Your task to perform on an android device: Open the calendar app, open the side menu, and click the "Day" option Image 0: 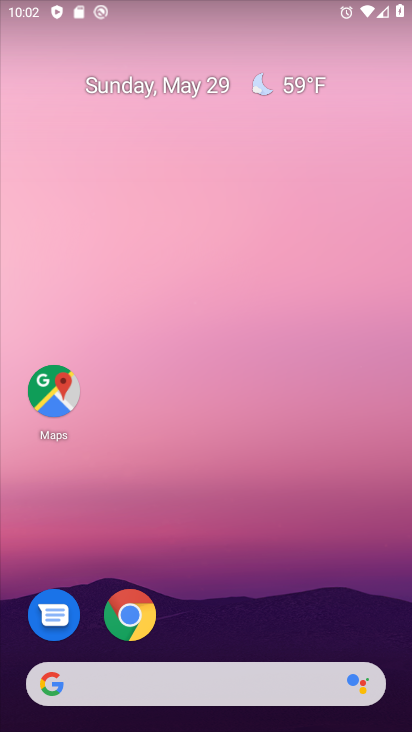
Step 0: drag from (252, 549) to (240, 5)
Your task to perform on an android device: Open the calendar app, open the side menu, and click the "Day" option Image 1: 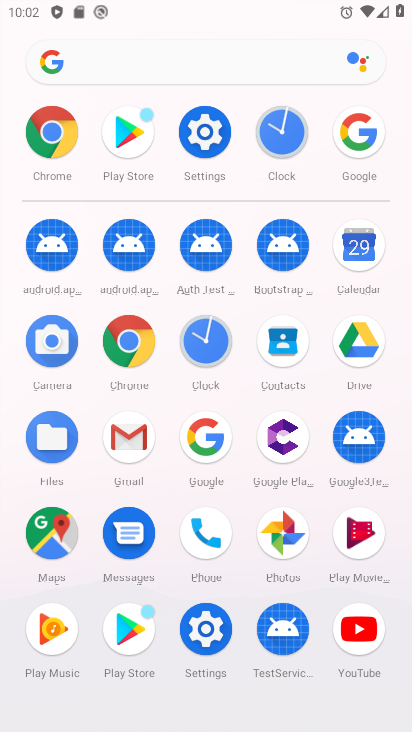
Step 1: click (357, 258)
Your task to perform on an android device: Open the calendar app, open the side menu, and click the "Day" option Image 2: 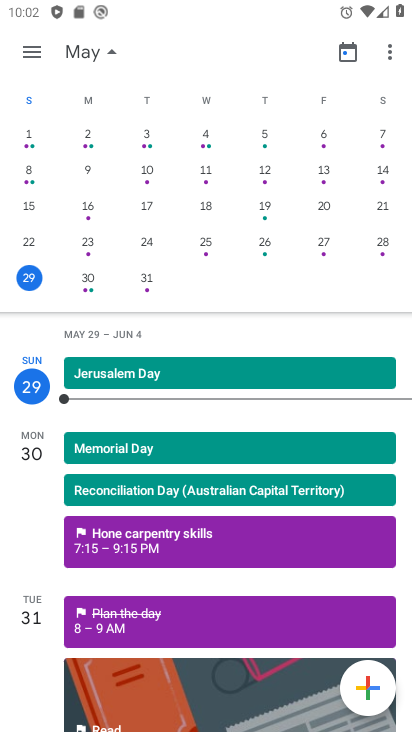
Step 2: click (28, 44)
Your task to perform on an android device: Open the calendar app, open the side menu, and click the "Day" option Image 3: 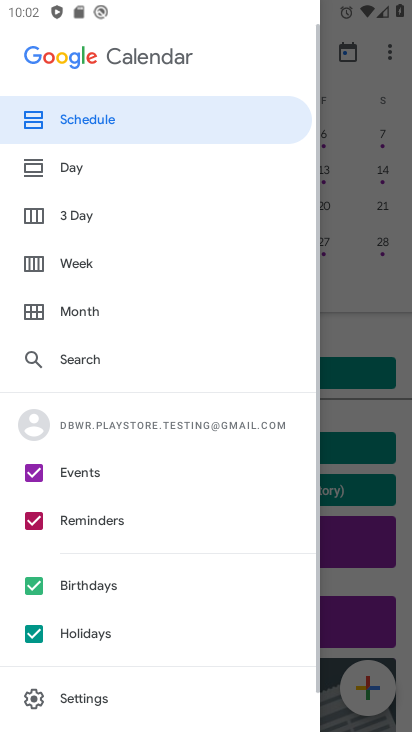
Step 3: click (110, 165)
Your task to perform on an android device: Open the calendar app, open the side menu, and click the "Day" option Image 4: 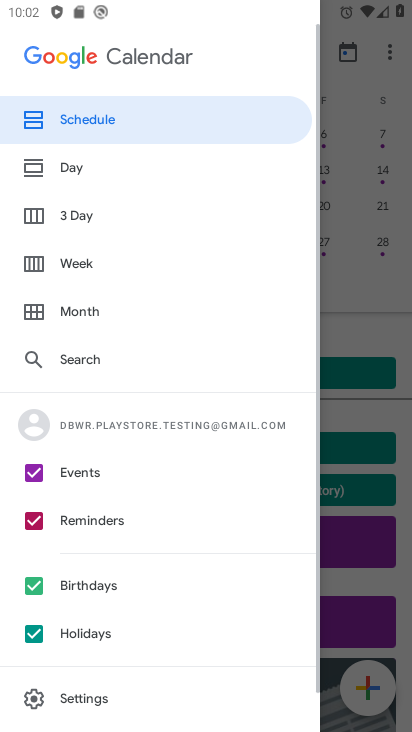
Step 4: click (67, 171)
Your task to perform on an android device: Open the calendar app, open the side menu, and click the "Day" option Image 5: 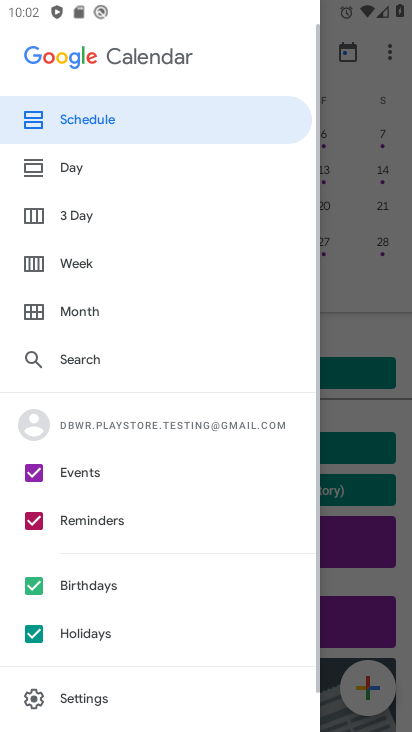
Step 5: click (132, 164)
Your task to perform on an android device: Open the calendar app, open the side menu, and click the "Day" option Image 6: 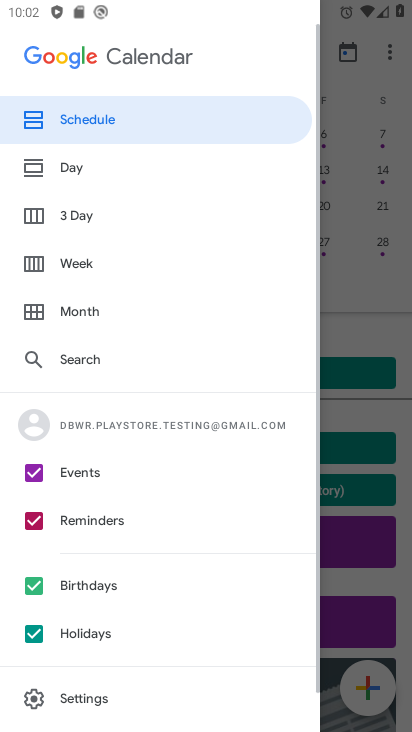
Step 6: click (83, 166)
Your task to perform on an android device: Open the calendar app, open the side menu, and click the "Day" option Image 7: 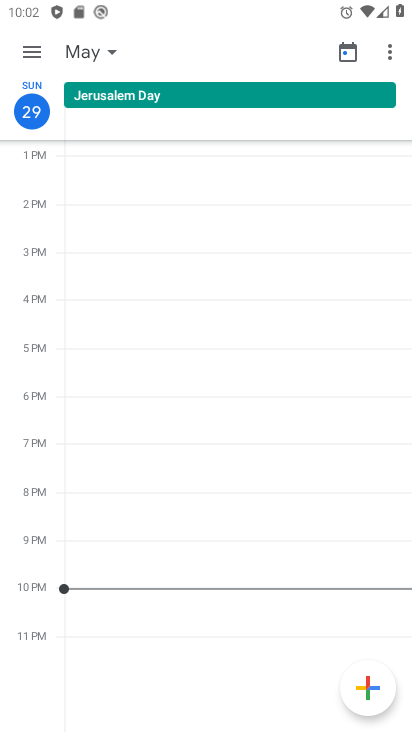
Step 7: task complete